Your task to perform on an android device: check android version Image 0: 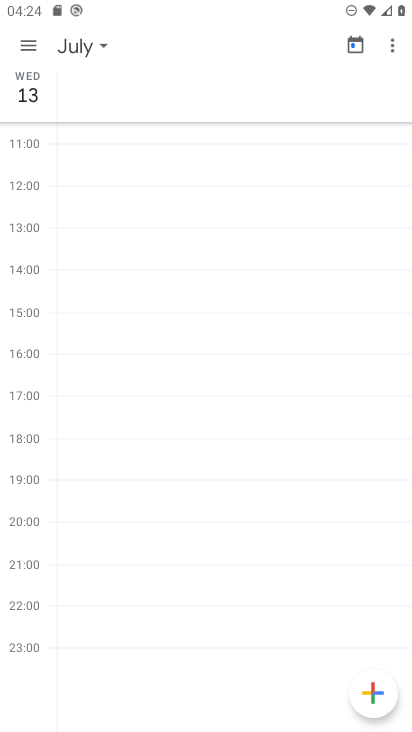
Step 0: press home button
Your task to perform on an android device: check android version Image 1: 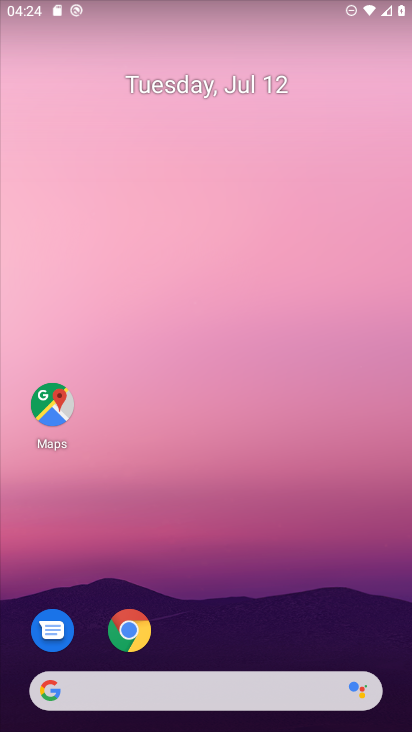
Step 1: drag from (389, 656) to (318, 116)
Your task to perform on an android device: check android version Image 2: 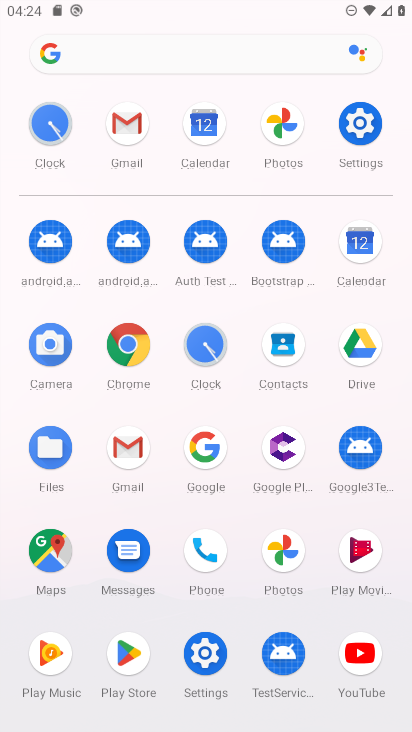
Step 2: click (203, 655)
Your task to perform on an android device: check android version Image 3: 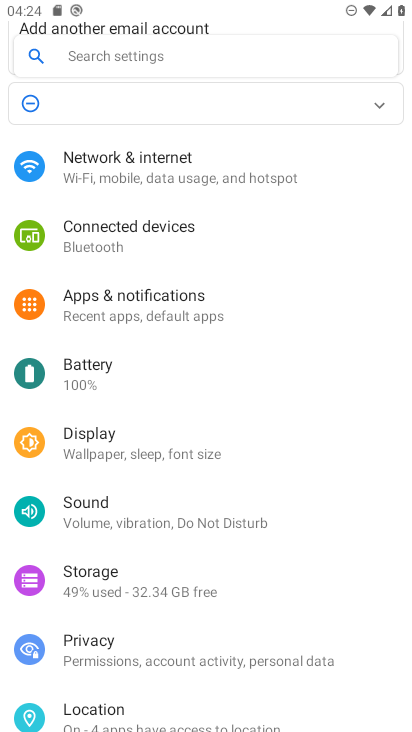
Step 3: drag from (340, 692) to (329, 196)
Your task to perform on an android device: check android version Image 4: 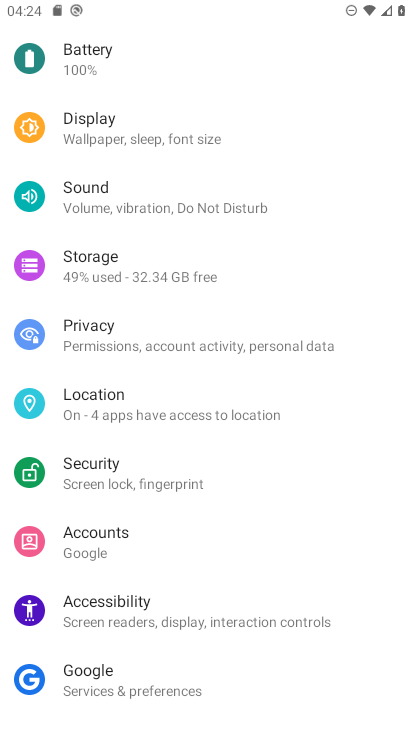
Step 4: drag from (345, 687) to (353, 260)
Your task to perform on an android device: check android version Image 5: 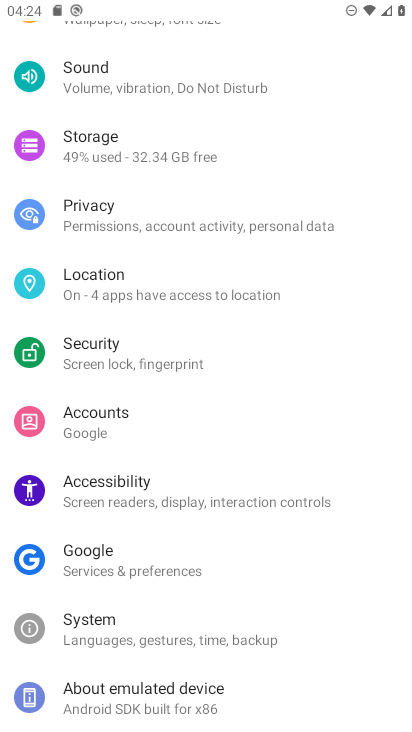
Step 5: click (81, 701)
Your task to perform on an android device: check android version Image 6: 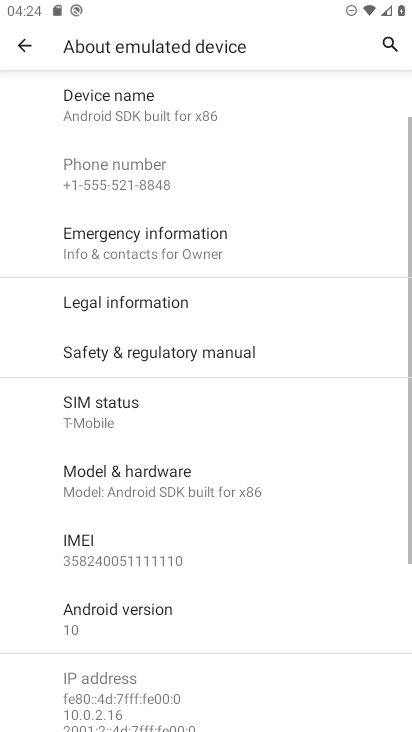
Step 6: click (95, 614)
Your task to perform on an android device: check android version Image 7: 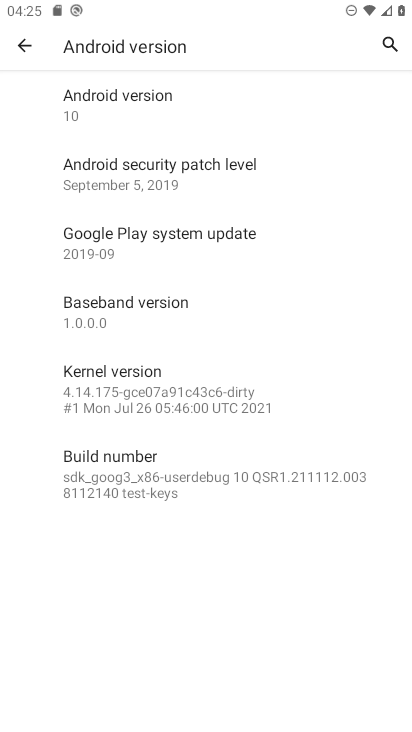
Step 7: task complete